Your task to perform on an android device: Search for Italian restaurants on Maps Image 0: 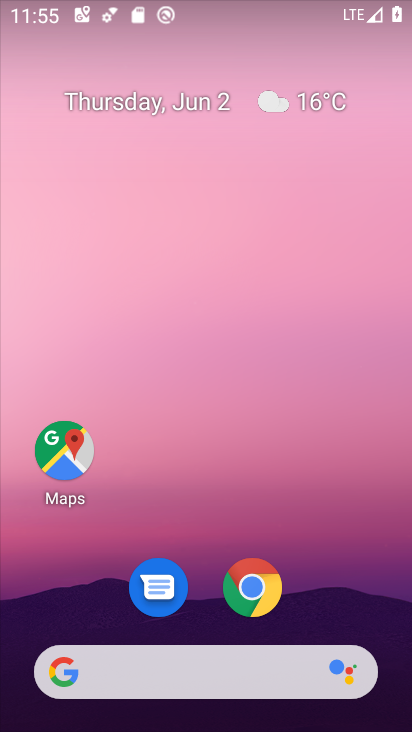
Step 0: click (64, 457)
Your task to perform on an android device: Search for Italian restaurants on Maps Image 1: 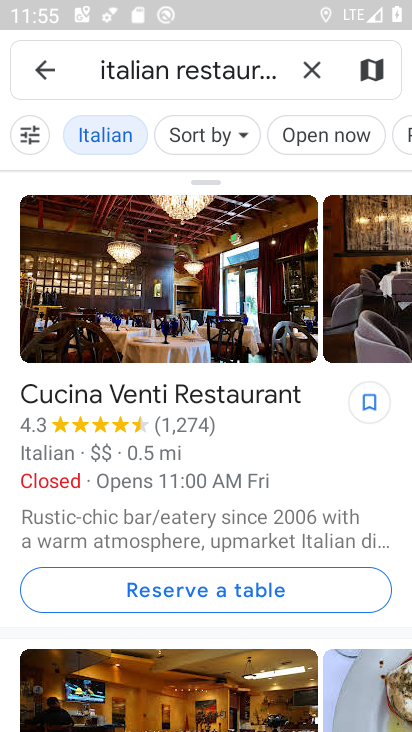
Step 1: task complete